Your task to perform on an android device: toggle translation in the chrome app Image 0: 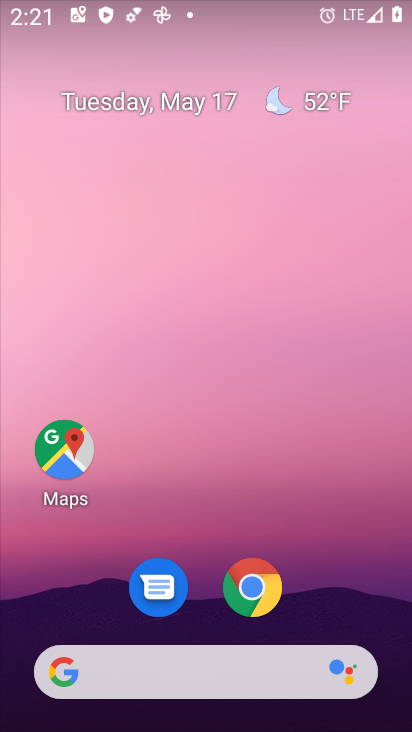
Step 0: click (282, 597)
Your task to perform on an android device: toggle translation in the chrome app Image 1: 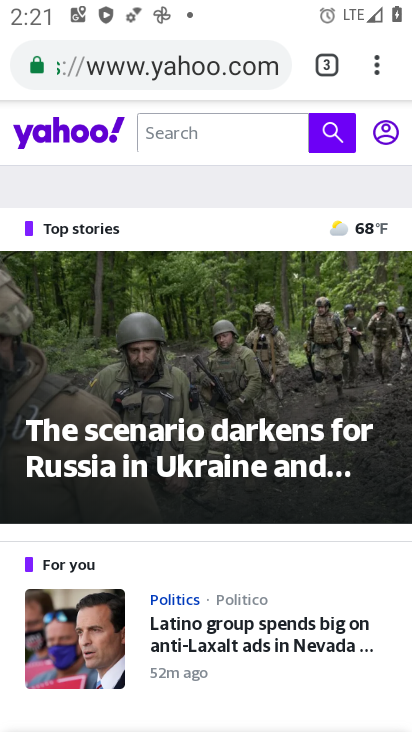
Step 1: click (366, 55)
Your task to perform on an android device: toggle translation in the chrome app Image 2: 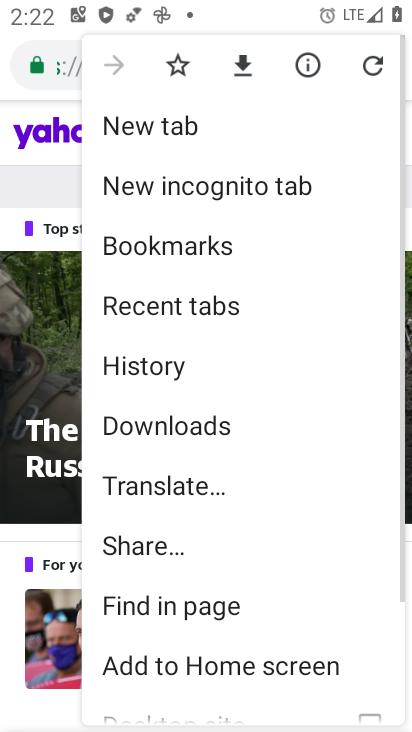
Step 2: drag from (167, 614) to (209, 211)
Your task to perform on an android device: toggle translation in the chrome app Image 3: 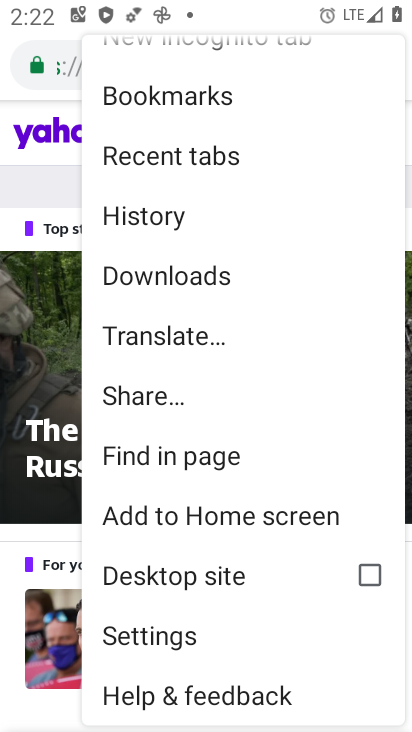
Step 3: click (173, 612)
Your task to perform on an android device: toggle translation in the chrome app Image 4: 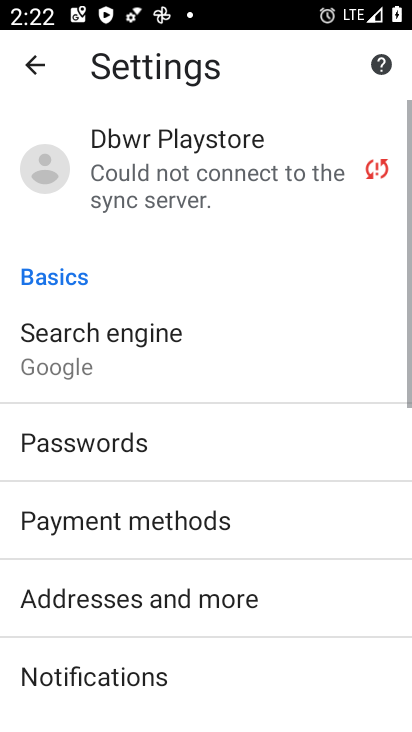
Step 4: drag from (196, 635) to (285, 142)
Your task to perform on an android device: toggle translation in the chrome app Image 5: 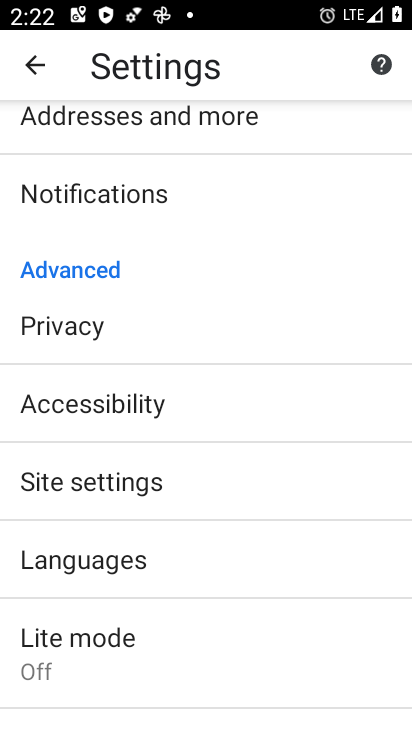
Step 5: click (206, 582)
Your task to perform on an android device: toggle translation in the chrome app Image 6: 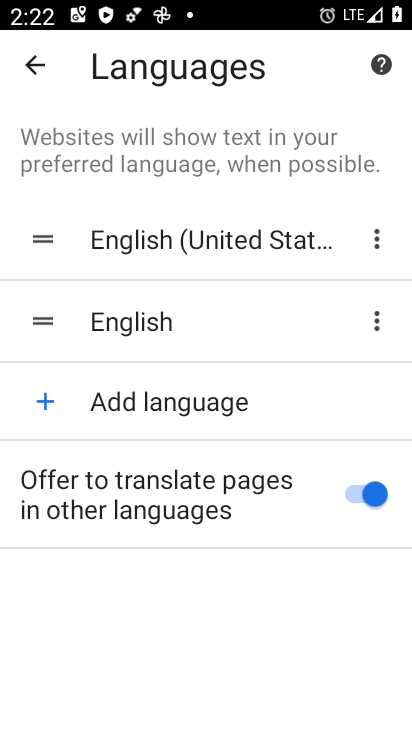
Step 6: click (301, 512)
Your task to perform on an android device: toggle translation in the chrome app Image 7: 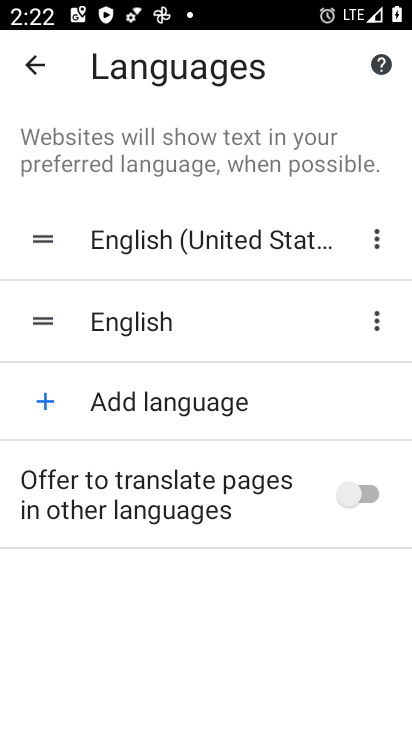
Step 7: task complete